Your task to perform on an android device: toggle data saver in the chrome app Image 0: 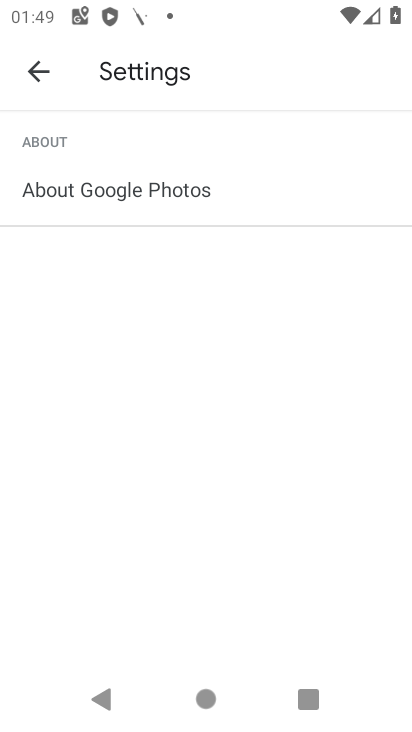
Step 0: press home button
Your task to perform on an android device: toggle data saver in the chrome app Image 1: 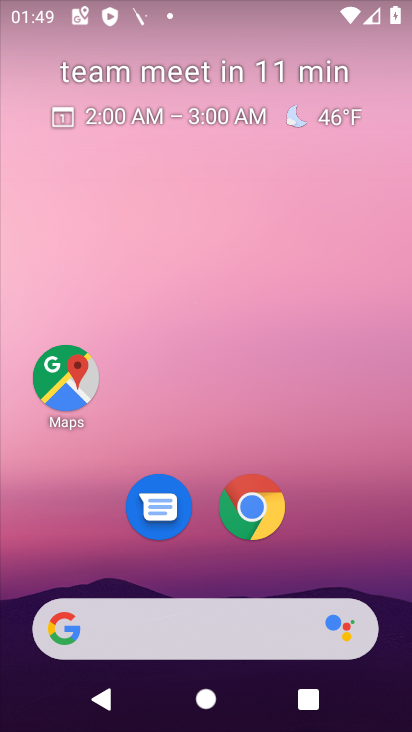
Step 1: drag from (327, 667) to (319, 215)
Your task to perform on an android device: toggle data saver in the chrome app Image 2: 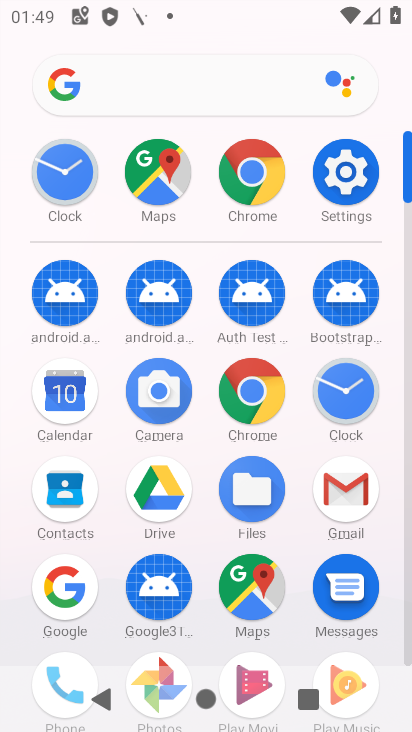
Step 2: click (268, 399)
Your task to perform on an android device: toggle data saver in the chrome app Image 3: 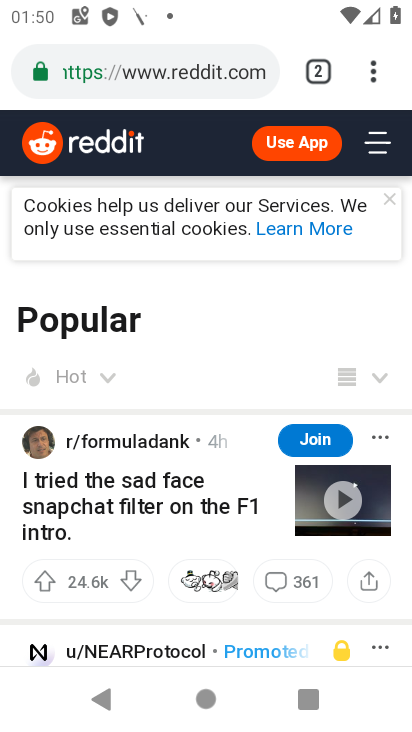
Step 3: click (373, 87)
Your task to perform on an android device: toggle data saver in the chrome app Image 4: 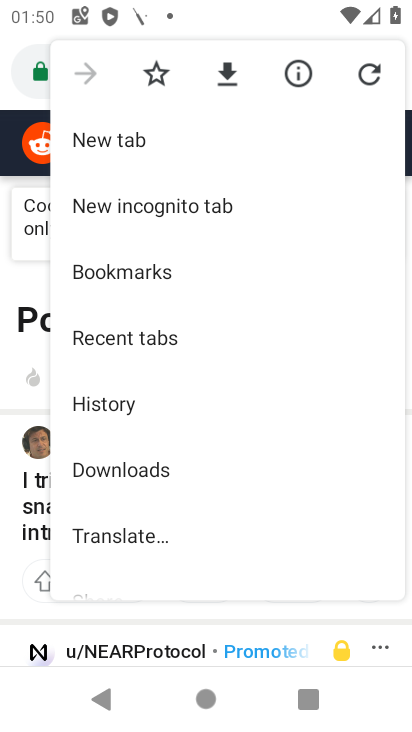
Step 4: drag from (127, 556) to (190, 374)
Your task to perform on an android device: toggle data saver in the chrome app Image 5: 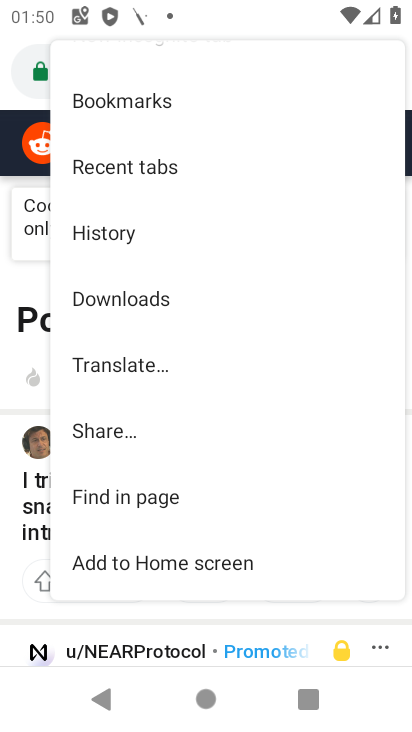
Step 5: drag from (155, 505) to (211, 356)
Your task to perform on an android device: toggle data saver in the chrome app Image 6: 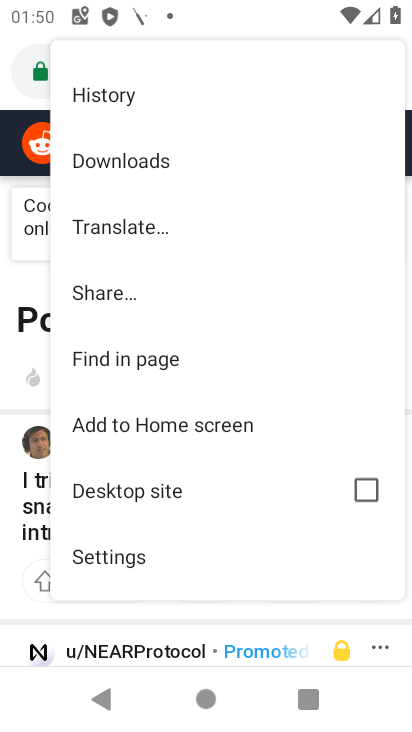
Step 6: click (137, 566)
Your task to perform on an android device: toggle data saver in the chrome app Image 7: 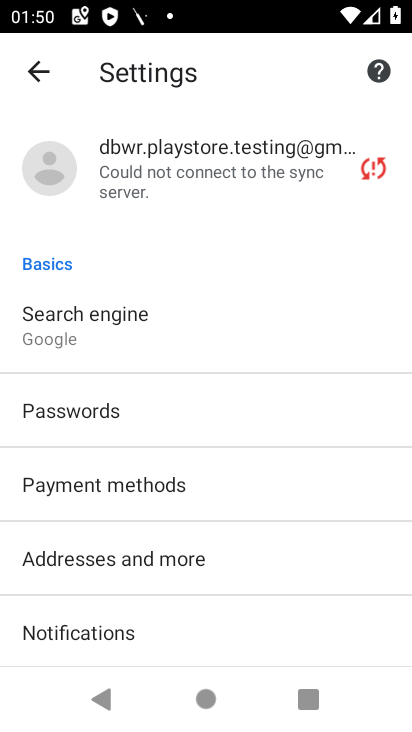
Step 7: drag from (181, 588) to (266, 361)
Your task to perform on an android device: toggle data saver in the chrome app Image 8: 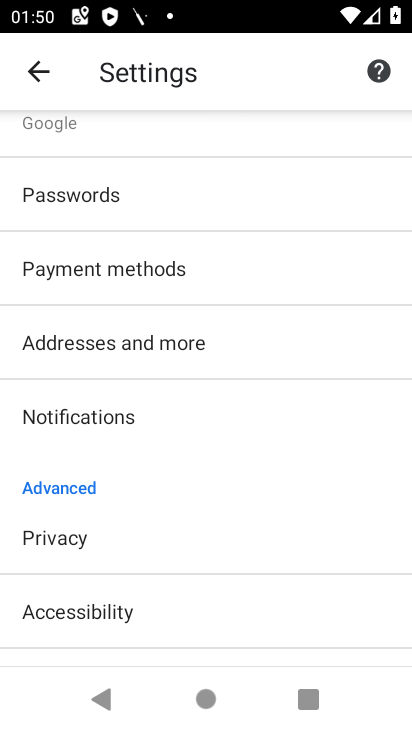
Step 8: drag from (172, 565) to (202, 362)
Your task to perform on an android device: toggle data saver in the chrome app Image 9: 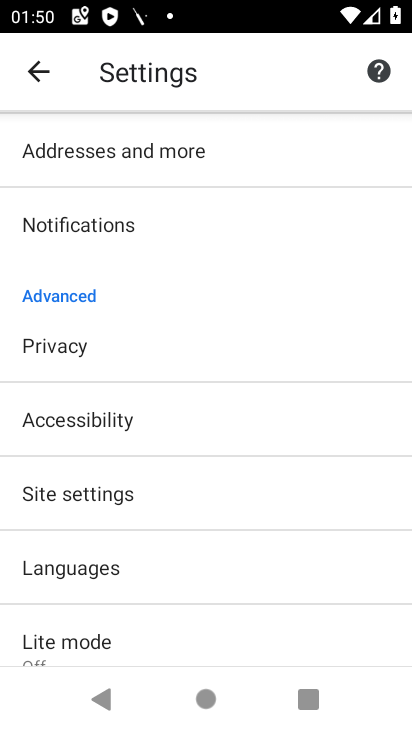
Step 9: click (80, 654)
Your task to perform on an android device: toggle data saver in the chrome app Image 10: 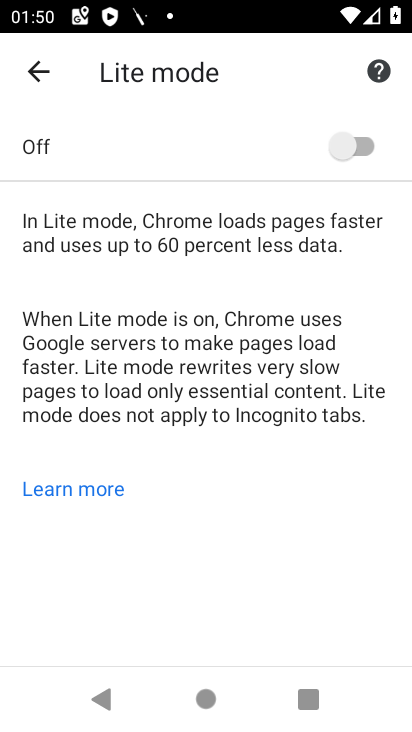
Step 10: task complete